Your task to perform on an android device: open app "Roku - Official Remote Control" (install if not already installed), go to login, and select forgot password Image 0: 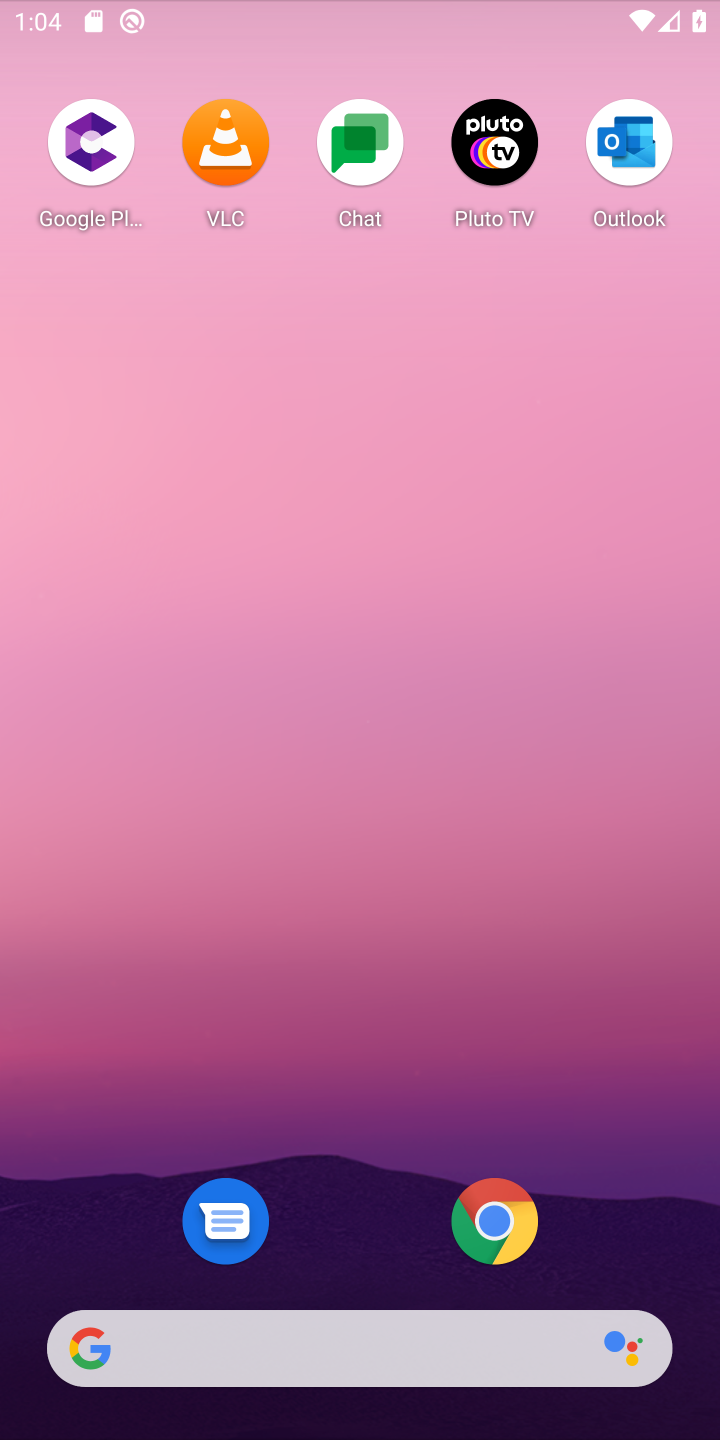
Step 0: press home button
Your task to perform on an android device: open app "Roku - Official Remote Control" (install if not already installed), go to login, and select forgot password Image 1: 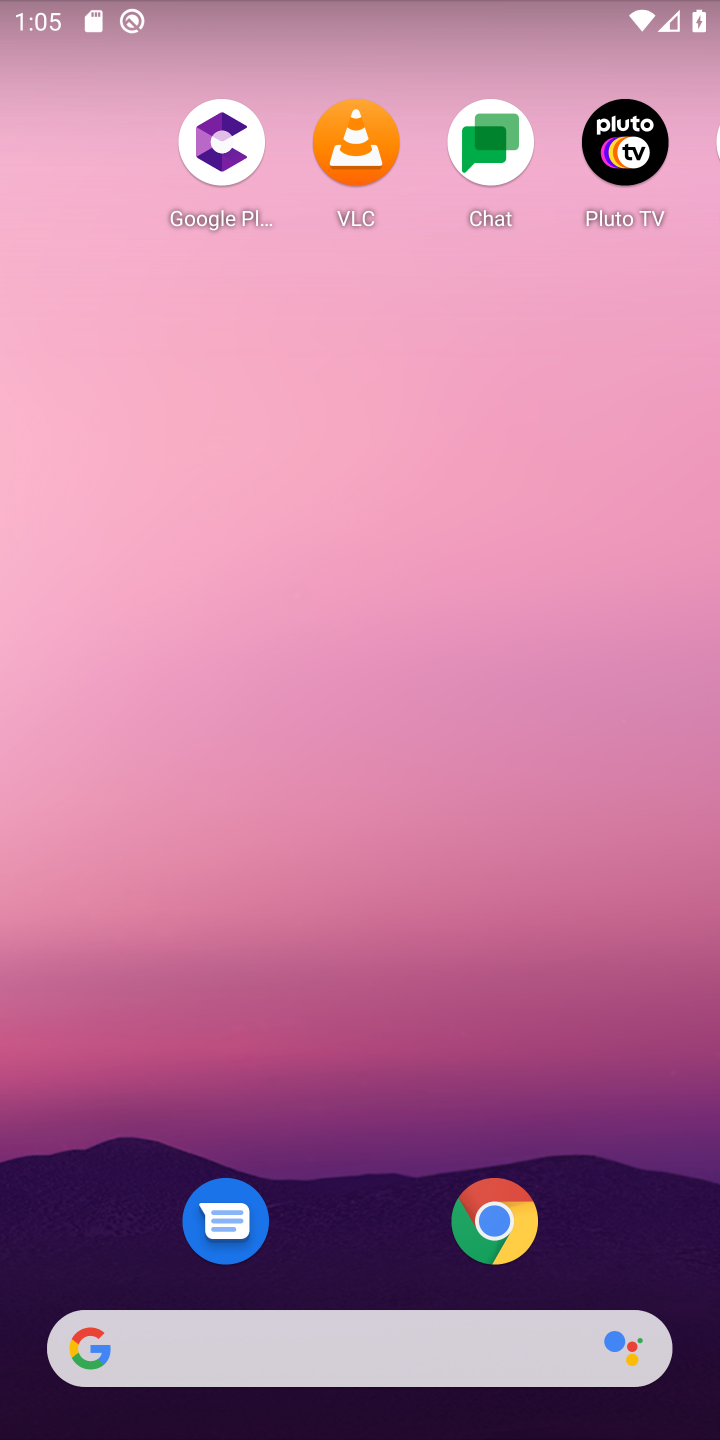
Step 1: drag from (350, 477) to (378, 141)
Your task to perform on an android device: open app "Roku - Official Remote Control" (install if not already installed), go to login, and select forgot password Image 2: 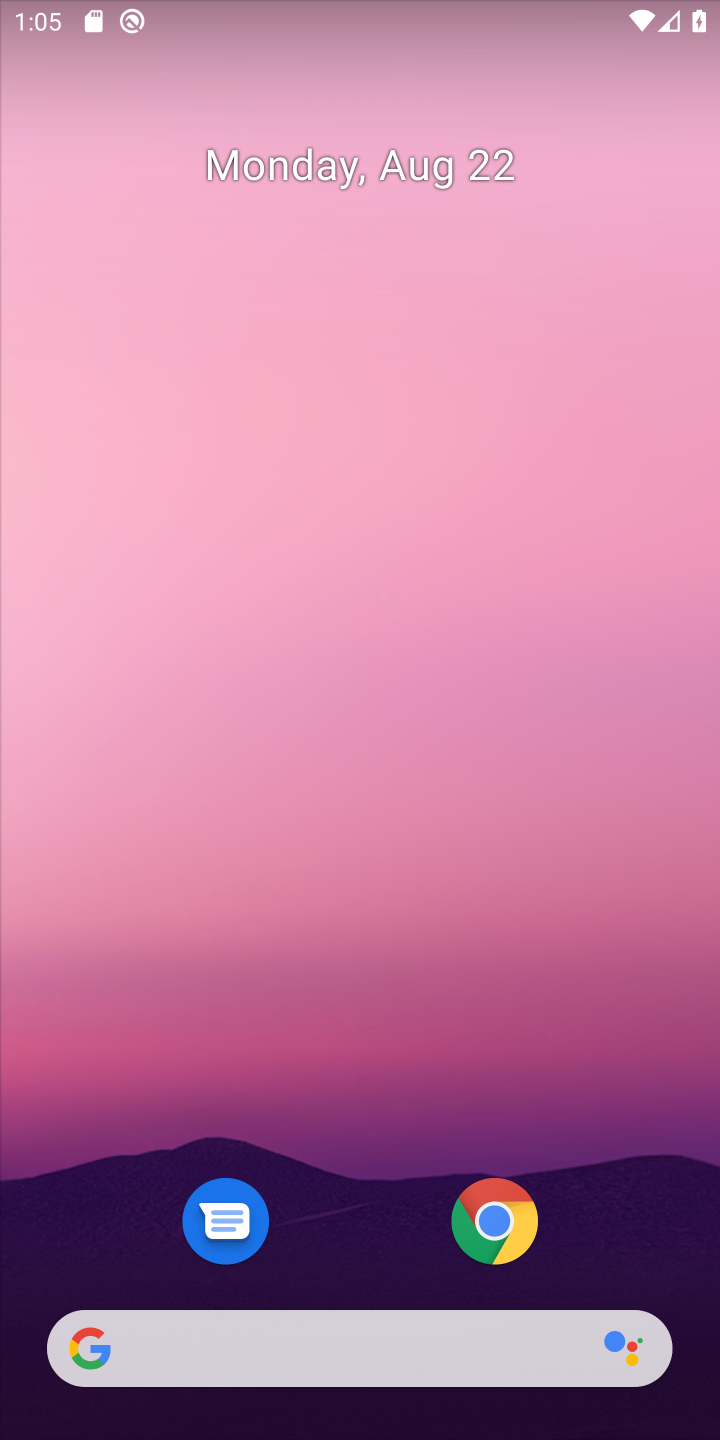
Step 2: drag from (352, 1275) to (346, 55)
Your task to perform on an android device: open app "Roku - Official Remote Control" (install if not already installed), go to login, and select forgot password Image 3: 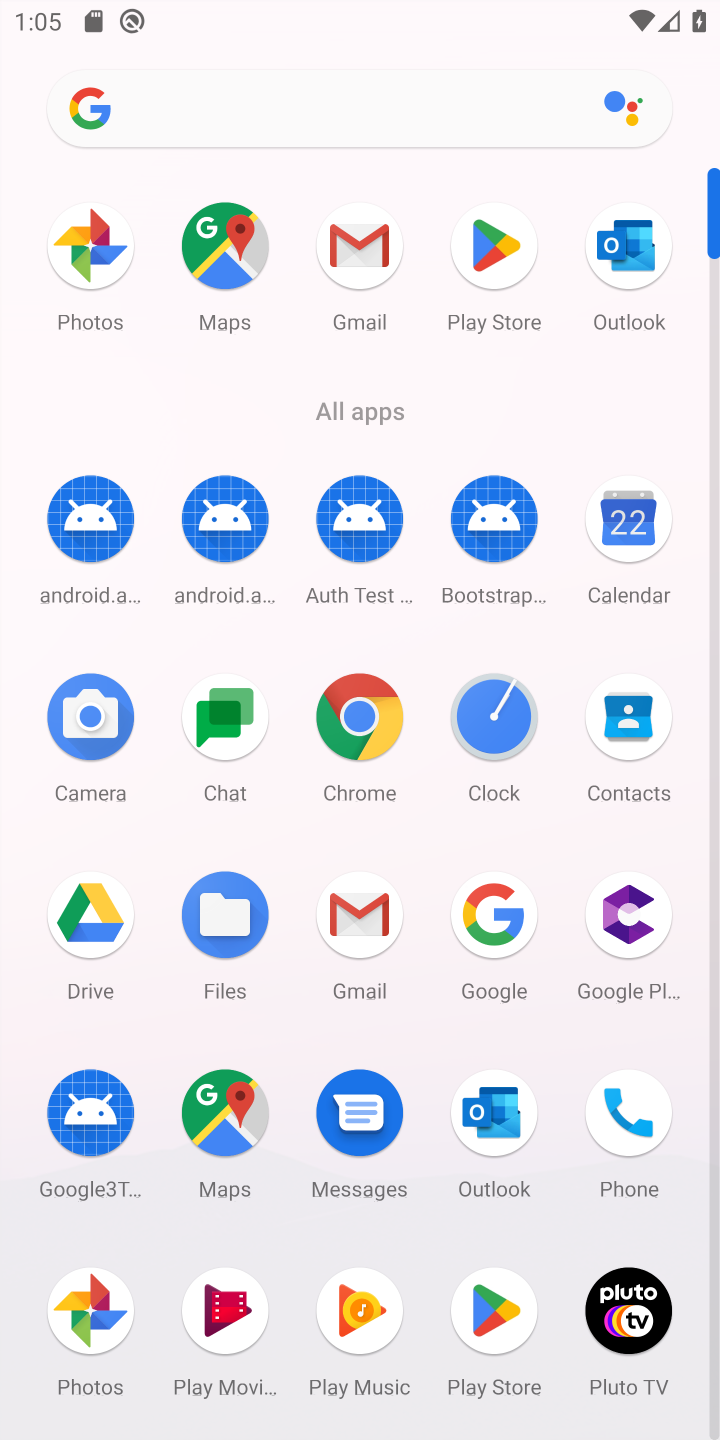
Step 3: click (489, 238)
Your task to perform on an android device: open app "Roku - Official Remote Control" (install if not already installed), go to login, and select forgot password Image 4: 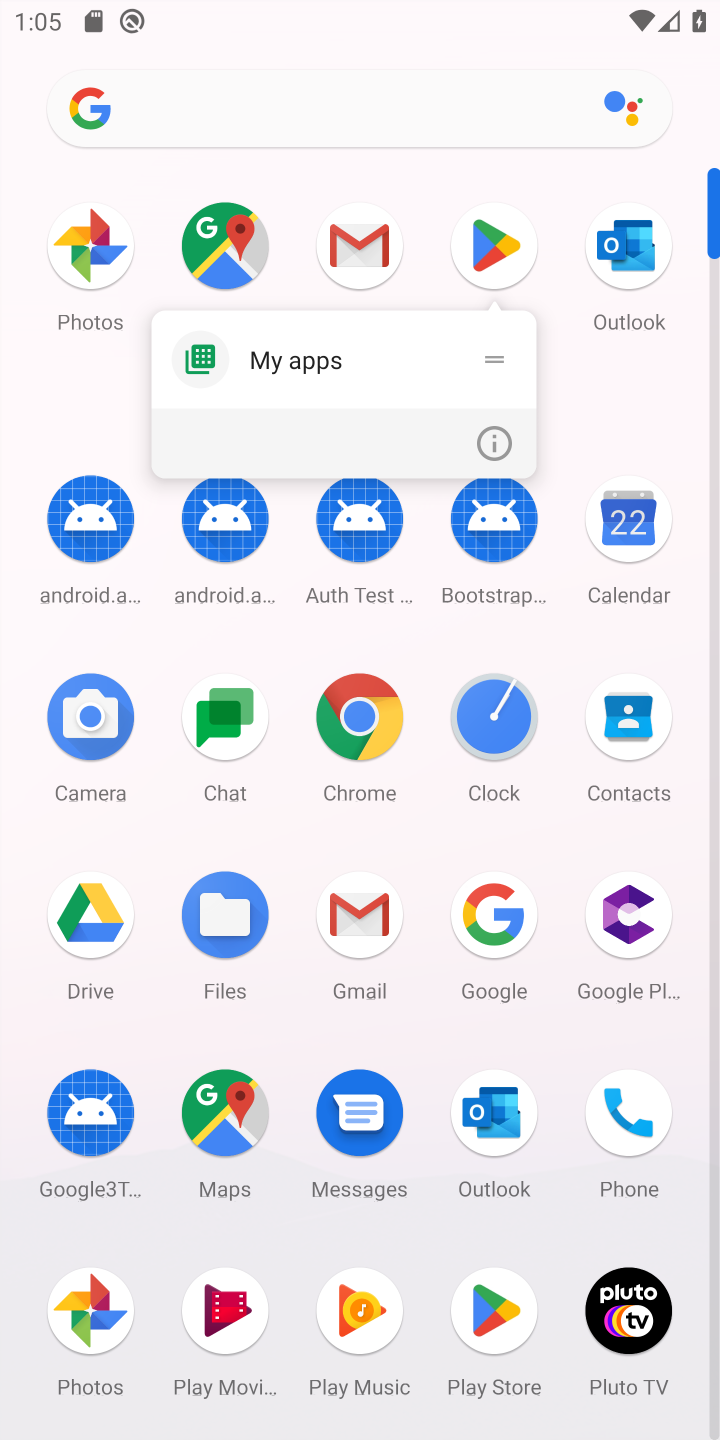
Step 4: click (487, 237)
Your task to perform on an android device: open app "Roku - Official Remote Control" (install if not already installed), go to login, and select forgot password Image 5: 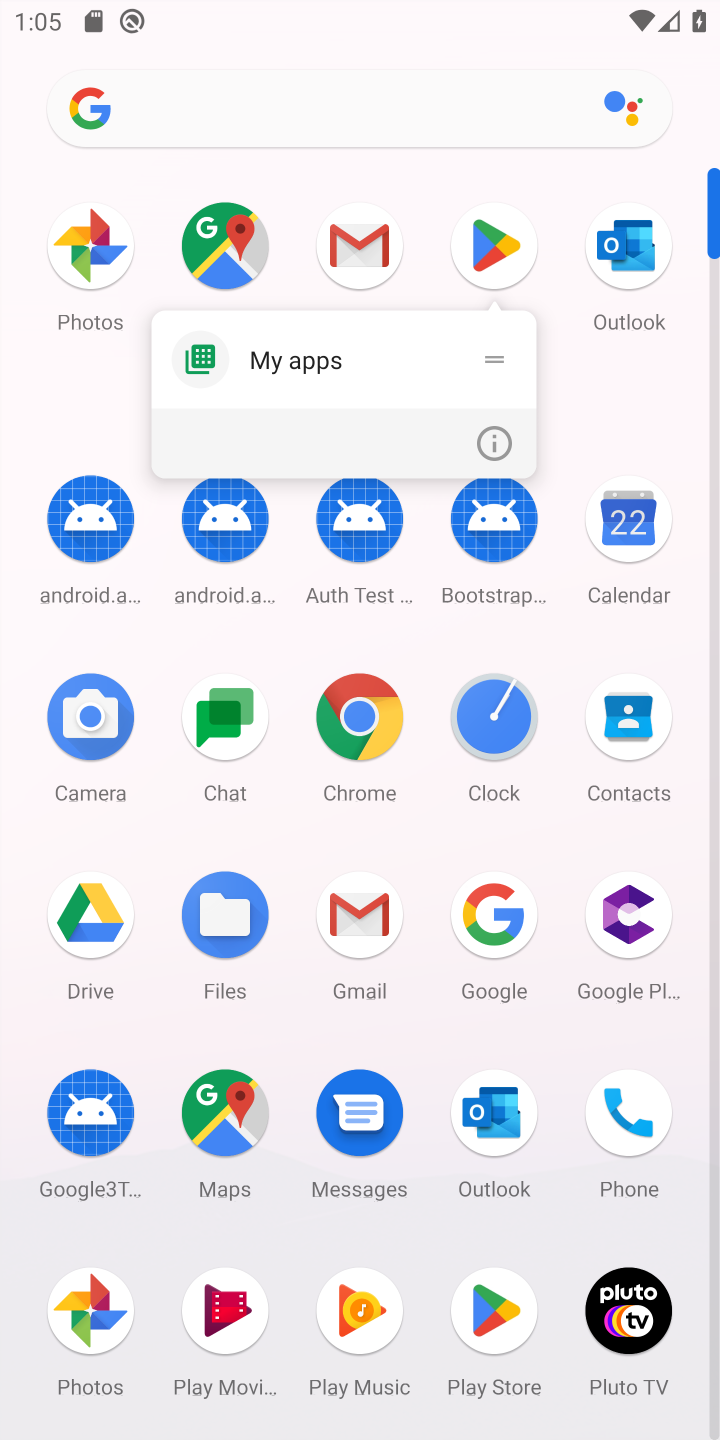
Step 5: click (487, 233)
Your task to perform on an android device: open app "Roku - Official Remote Control" (install if not already installed), go to login, and select forgot password Image 6: 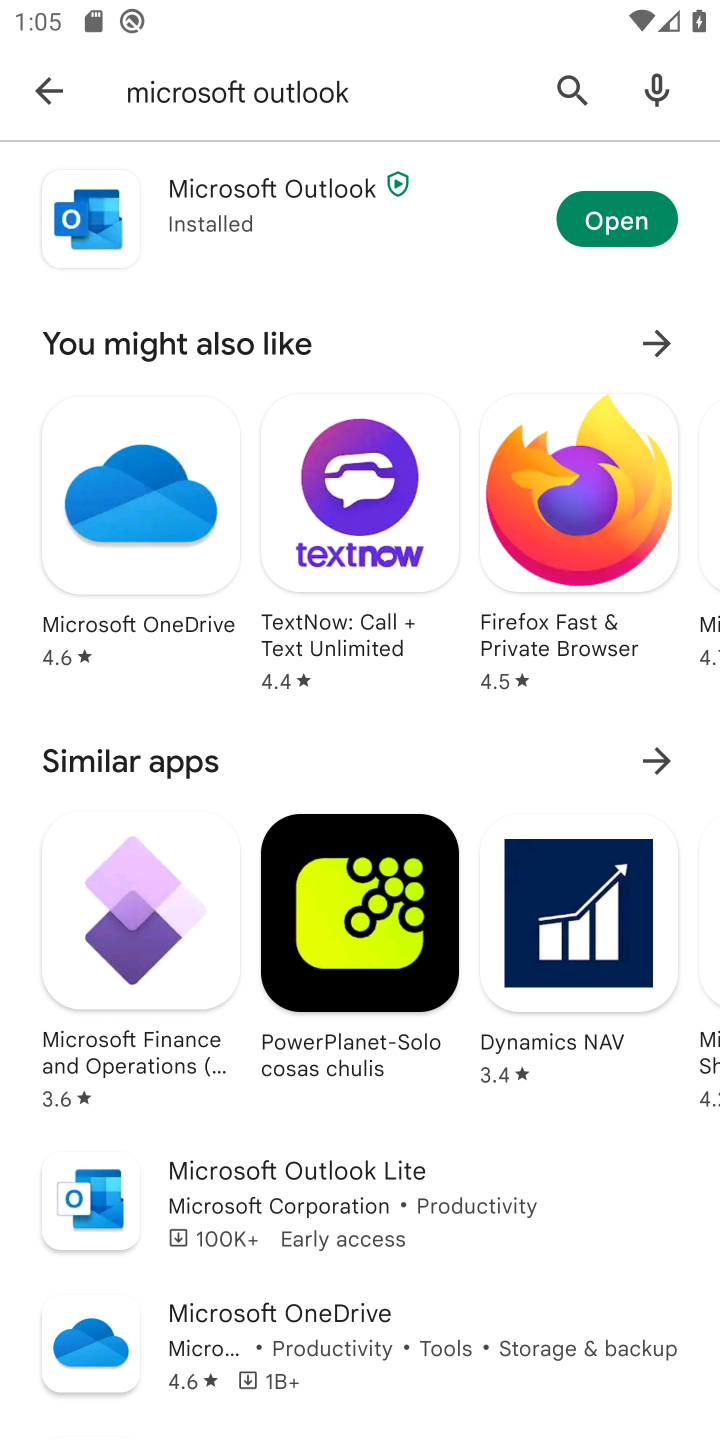
Step 6: click (567, 92)
Your task to perform on an android device: open app "Roku - Official Remote Control" (install if not already installed), go to login, and select forgot password Image 7: 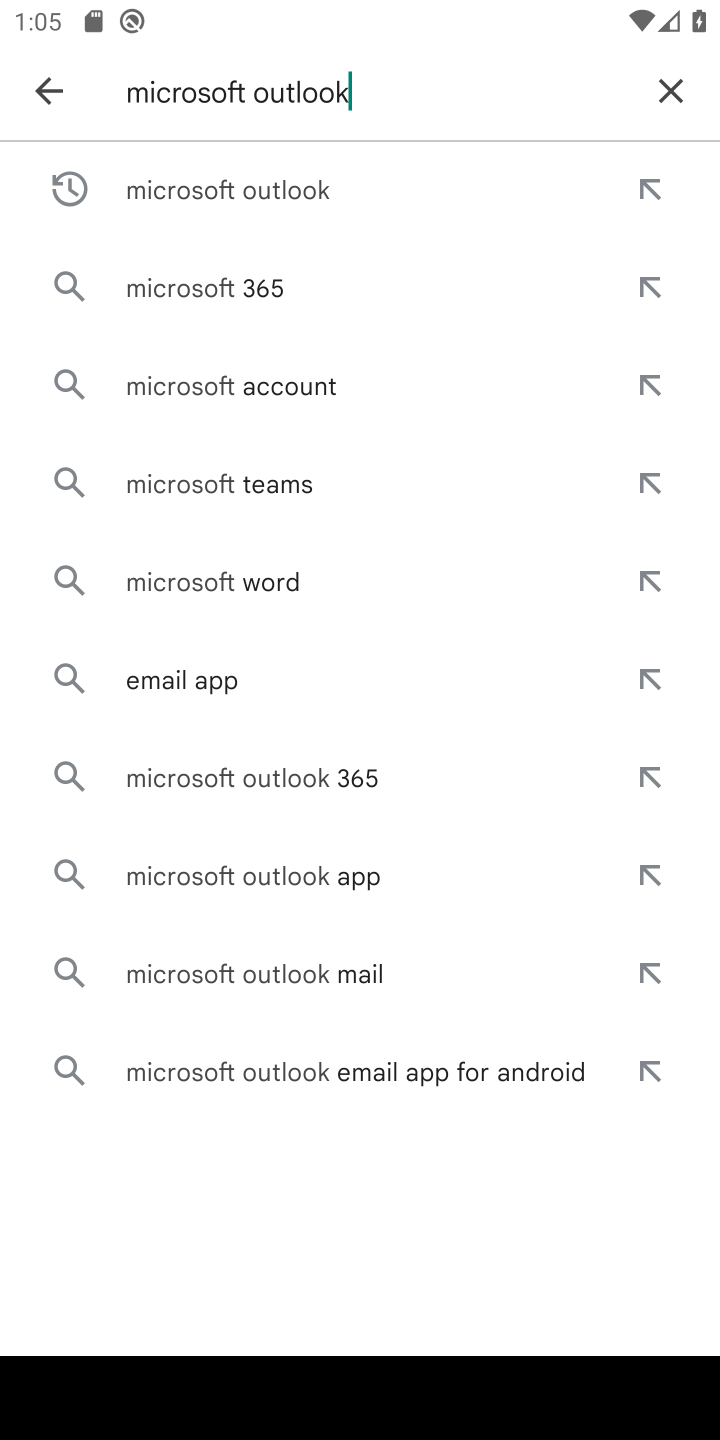
Step 7: click (661, 78)
Your task to perform on an android device: open app "Roku - Official Remote Control" (install if not already installed), go to login, and select forgot password Image 8: 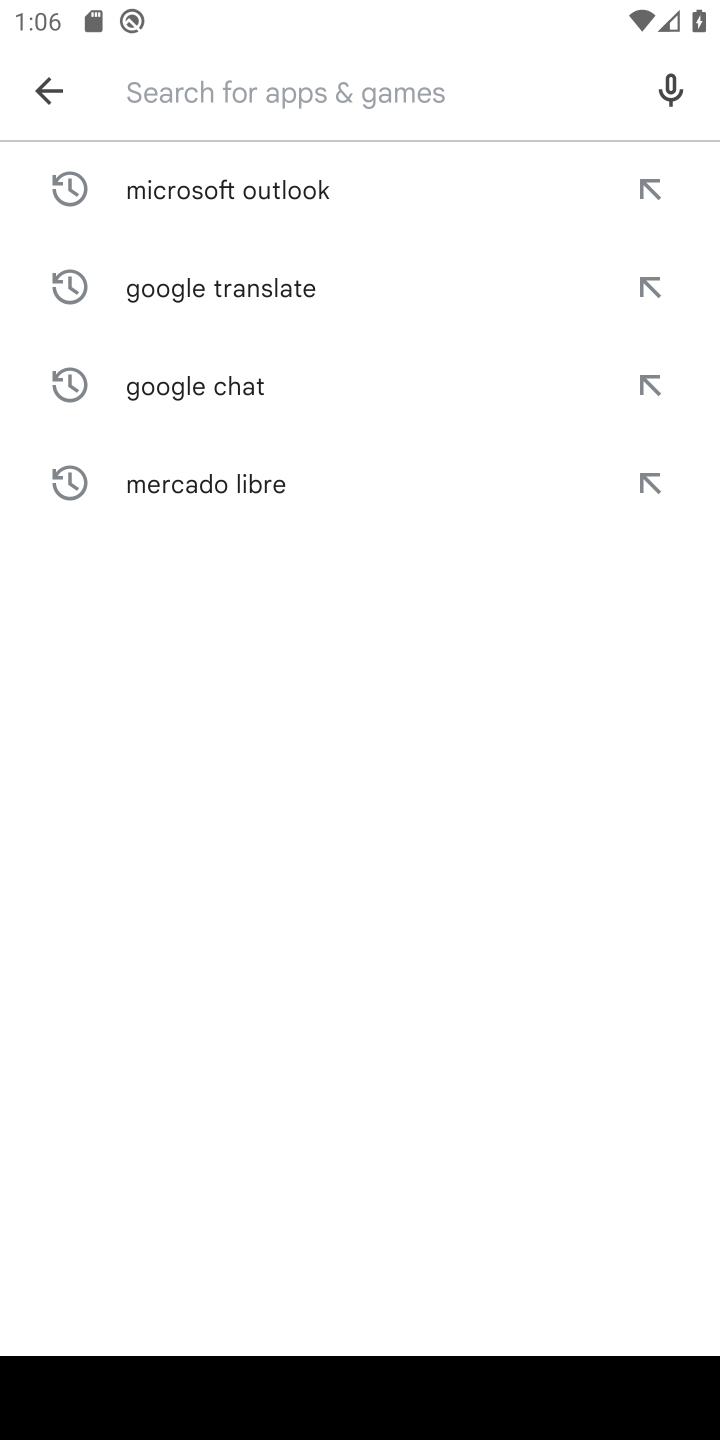
Step 8: type "Roku - Official Remote Control"
Your task to perform on an android device: open app "Roku - Official Remote Control" (install if not already installed), go to login, and select forgot password Image 9: 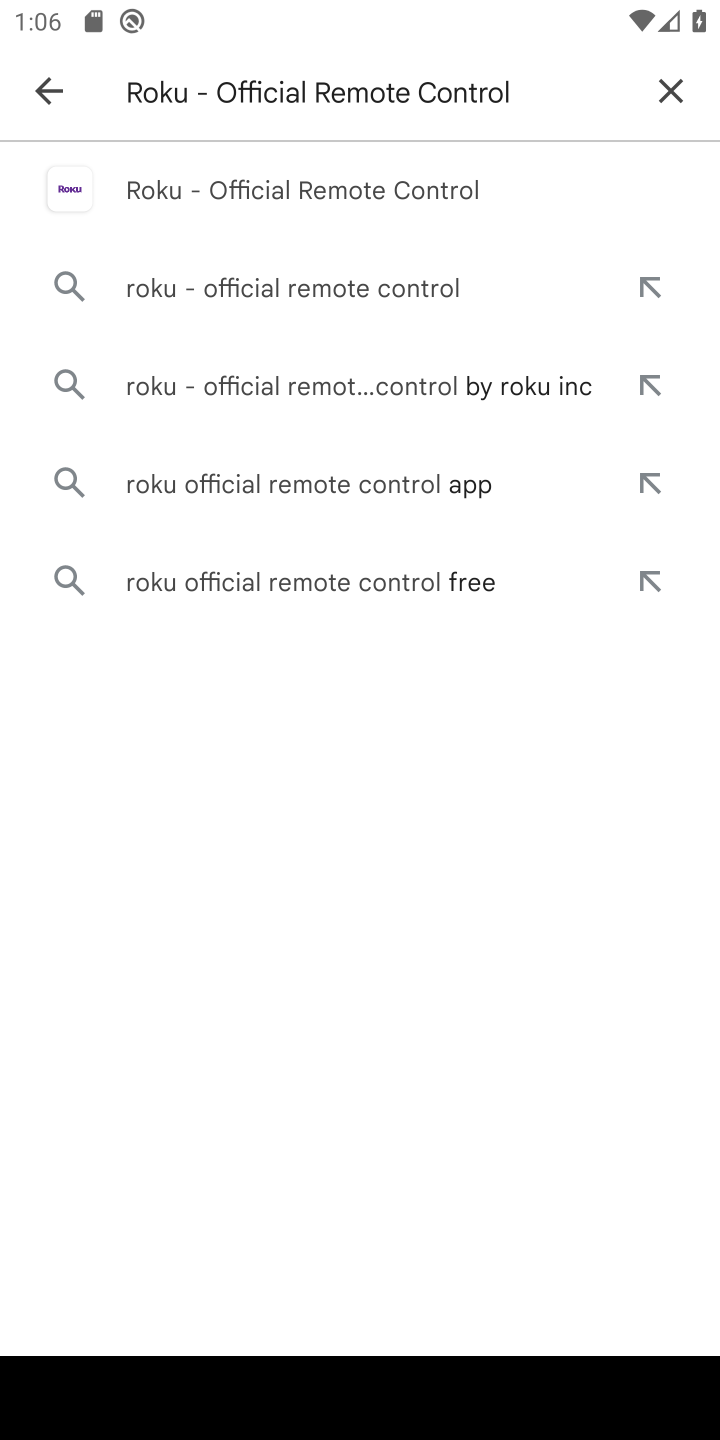
Step 9: click (286, 191)
Your task to perform on an android device: open app "Roku - Official Remote Control" (install if not already installed), go to login, and select forgot password Image 10: 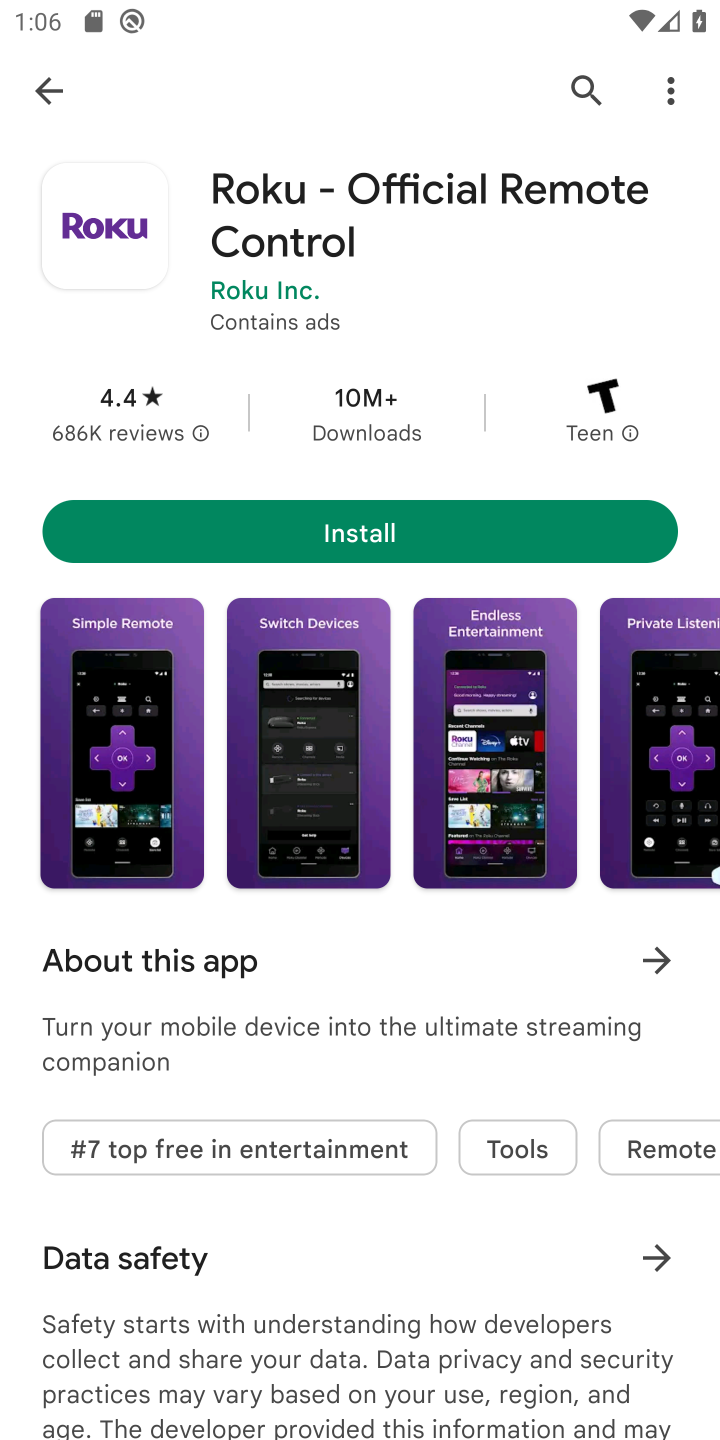
Step 10: click (366, 536)
Your task to perform on an android device: open app "Roku - Official Remote Control" (install if not already installed), go to login, and select forgot password Image 11: 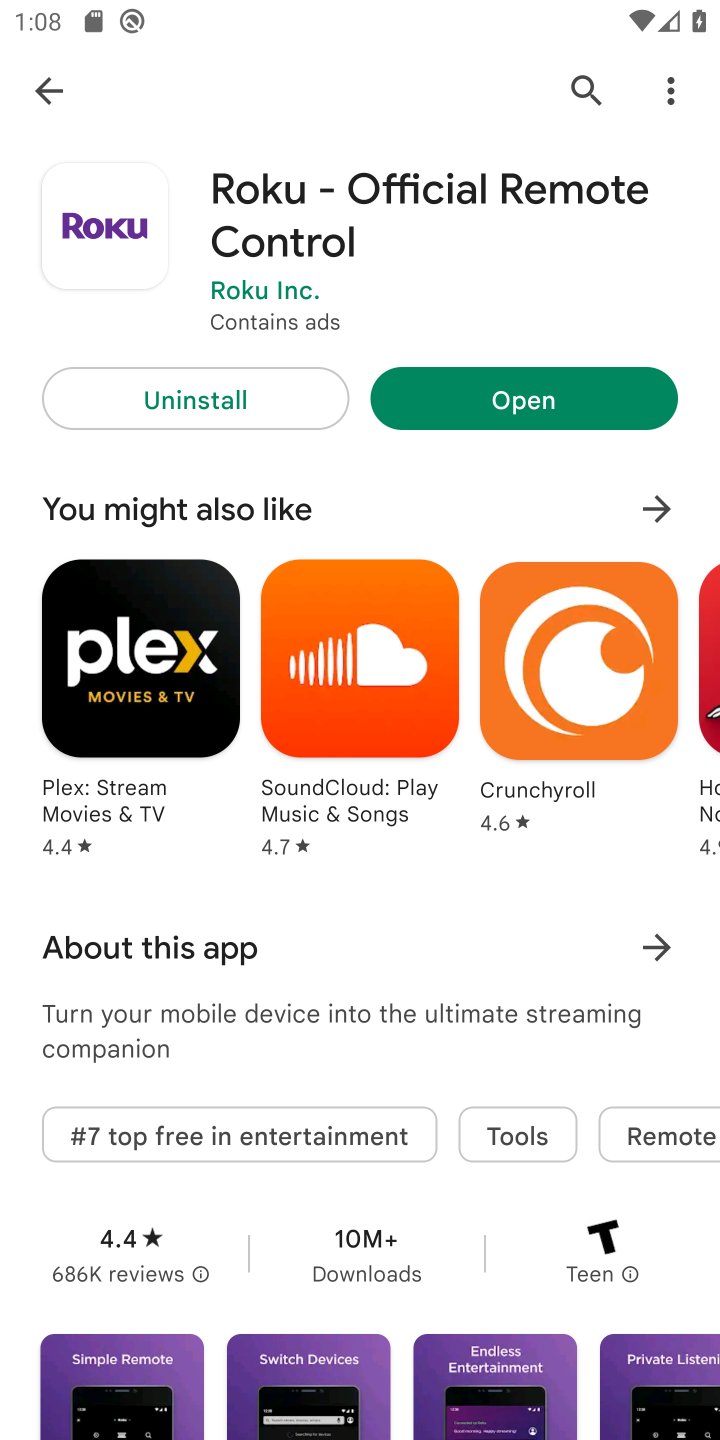
Step 11: click (536, 398)
Your task to perform on an android device: open app "Roku - Official Remote Control" (install if not already installed), go to login, and select forgot password Image 12: 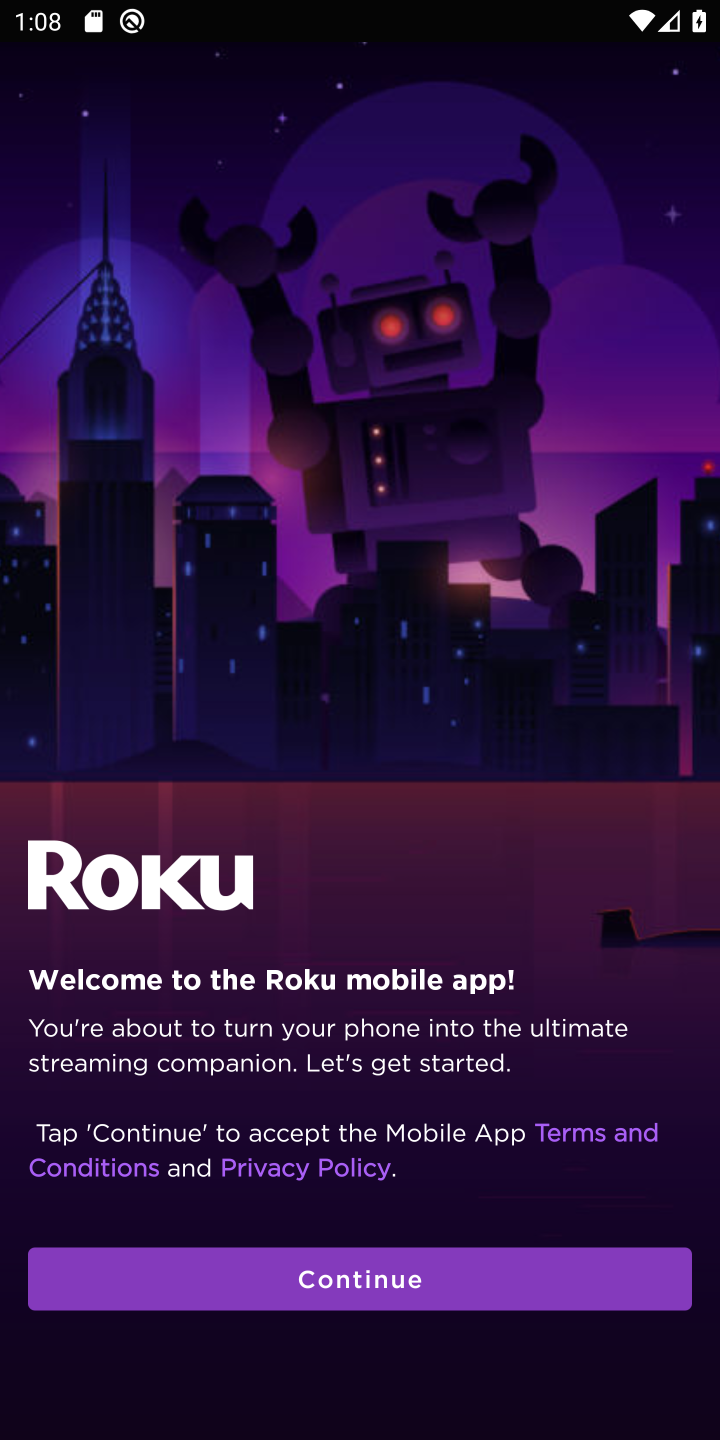
Step 12: click (364, 1286)
Your task to perform on an android device: open app "Roku - Official Remote Control" (install if not already installed), go to login, and select forgot password Image 13: 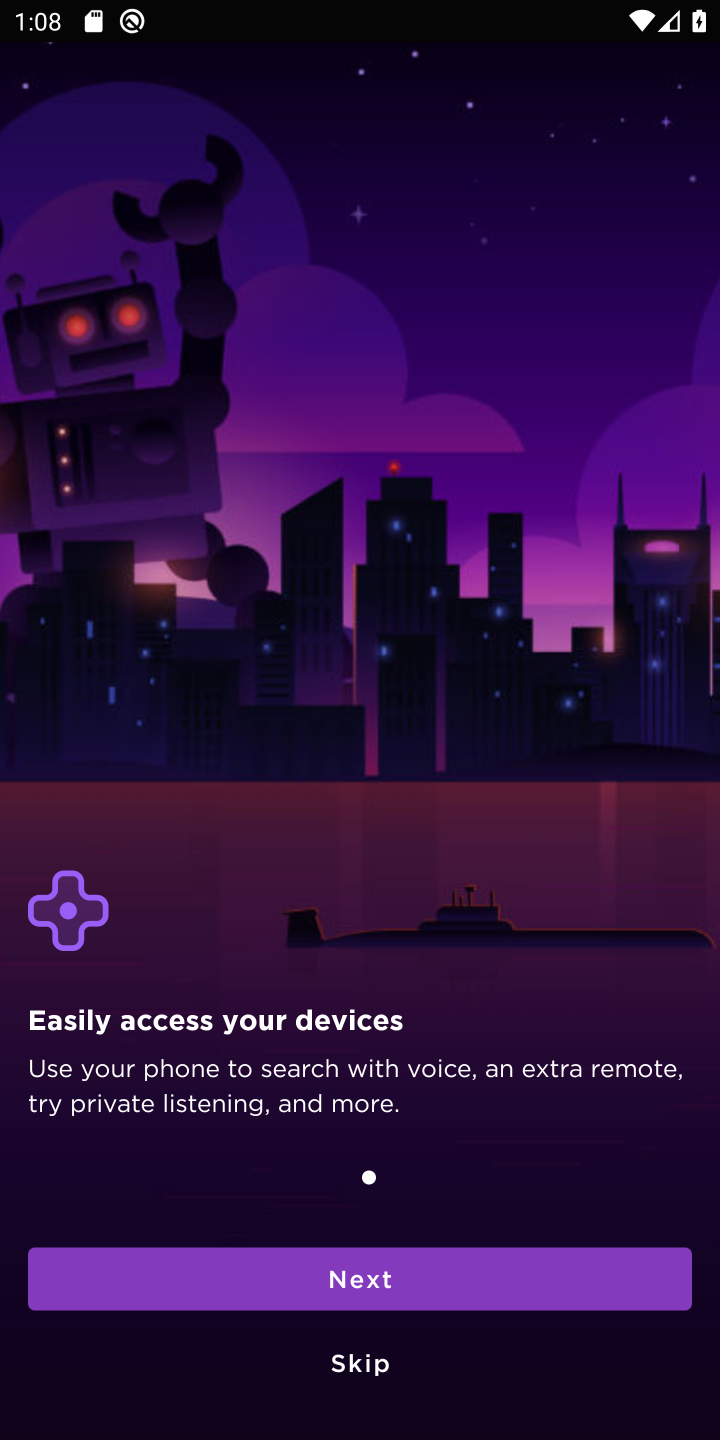
Step 13: click (384, 1352)
Your task to perform on an android device: open app "Roku - Official Remote Control" (install if not already installed), go to login, and select forgot password Image 14: 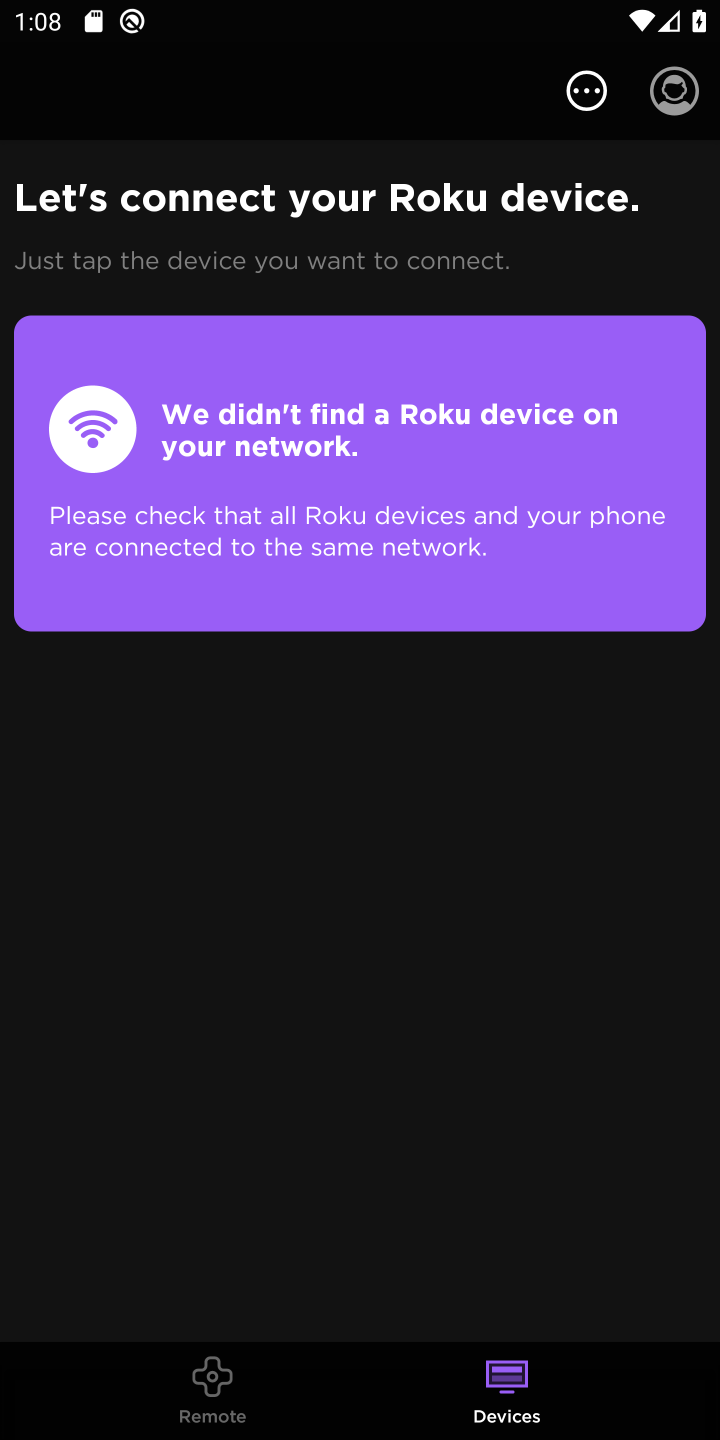
Step 14: click (226, 1383)
Your task to perform on an android device: open app "Roku - Official Remote Control" (install if not already installed), go to login, and select forgot password Image 15: 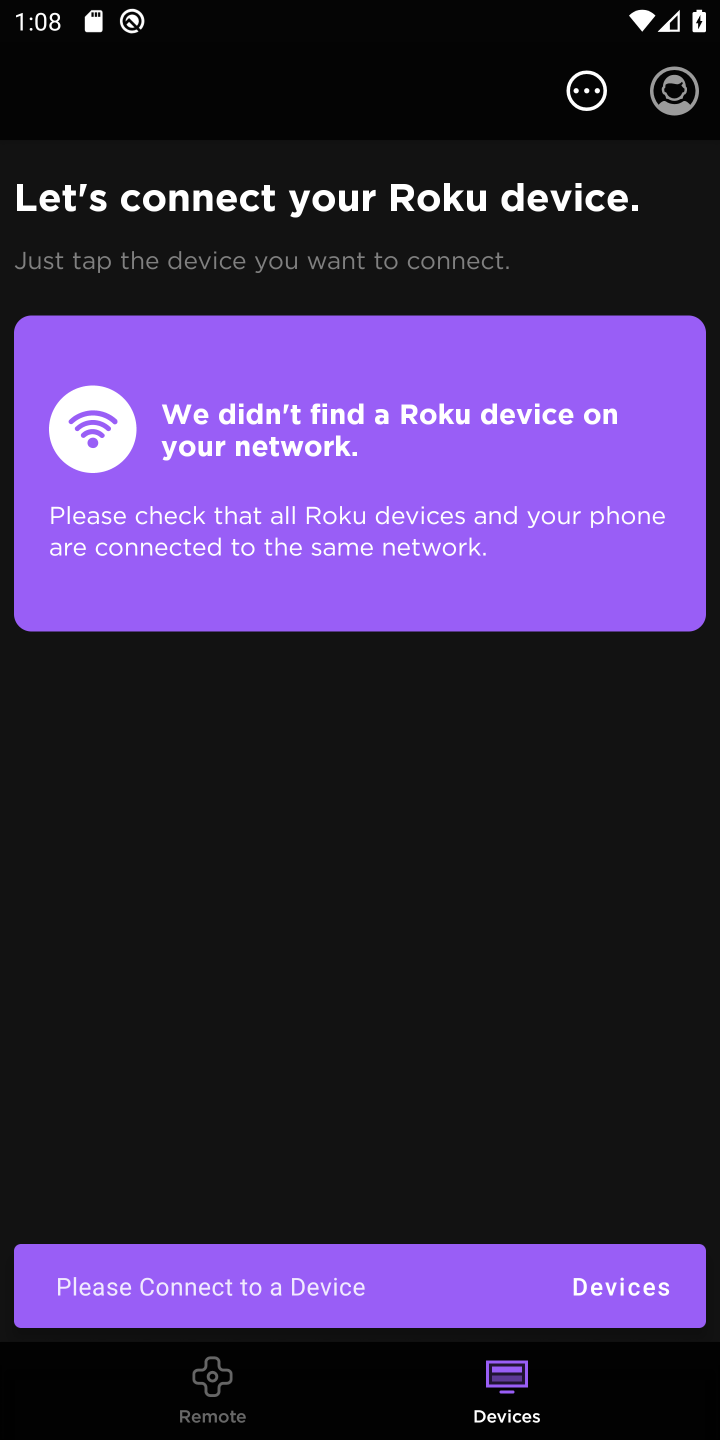
Step 15: click (681, 70)
Your task to perform on an android device: open app "Roku - Official Remote Control" (install if not already installed), go to login, and select forgot password Image 16: 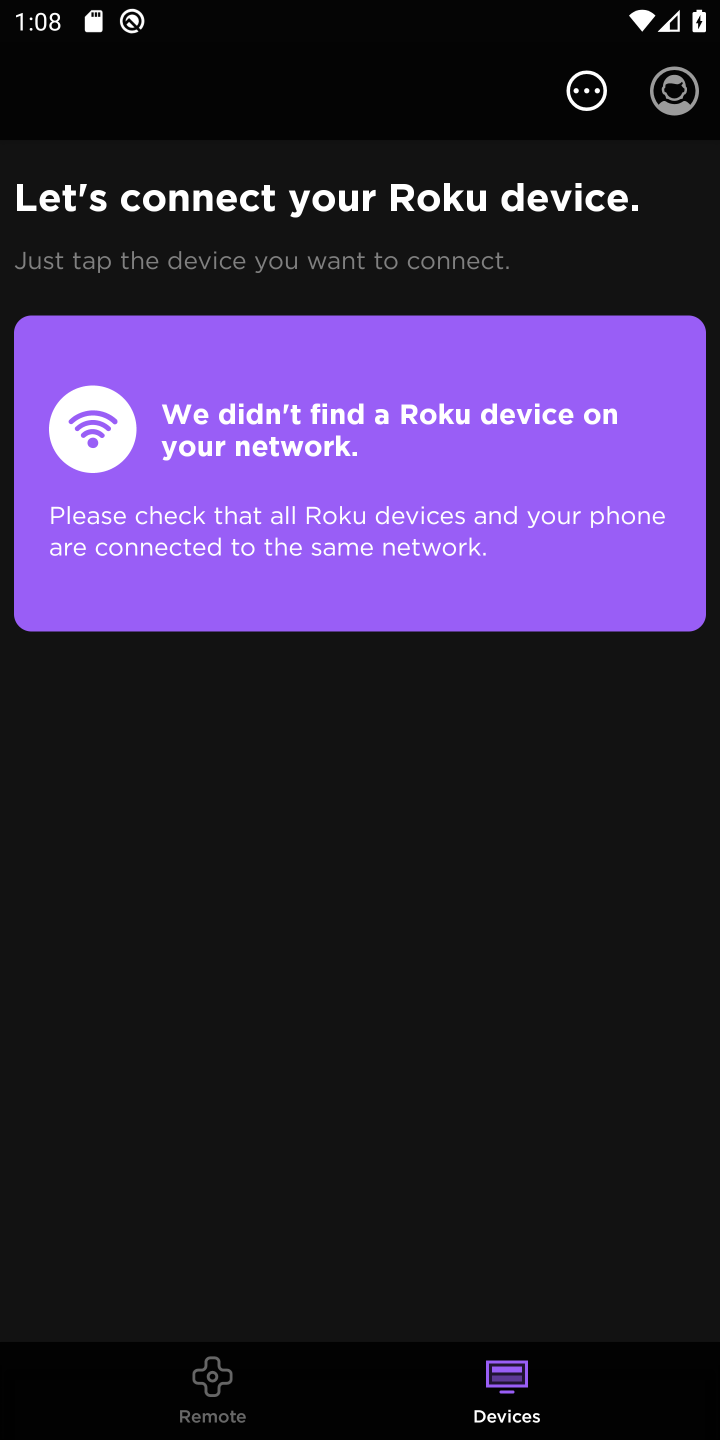
Step 16: click (669, 104)
Your task to perform on an android device: open app "Roku - Official Remote Control" (install if not already installed), go to login, and select forgot password Image 17: 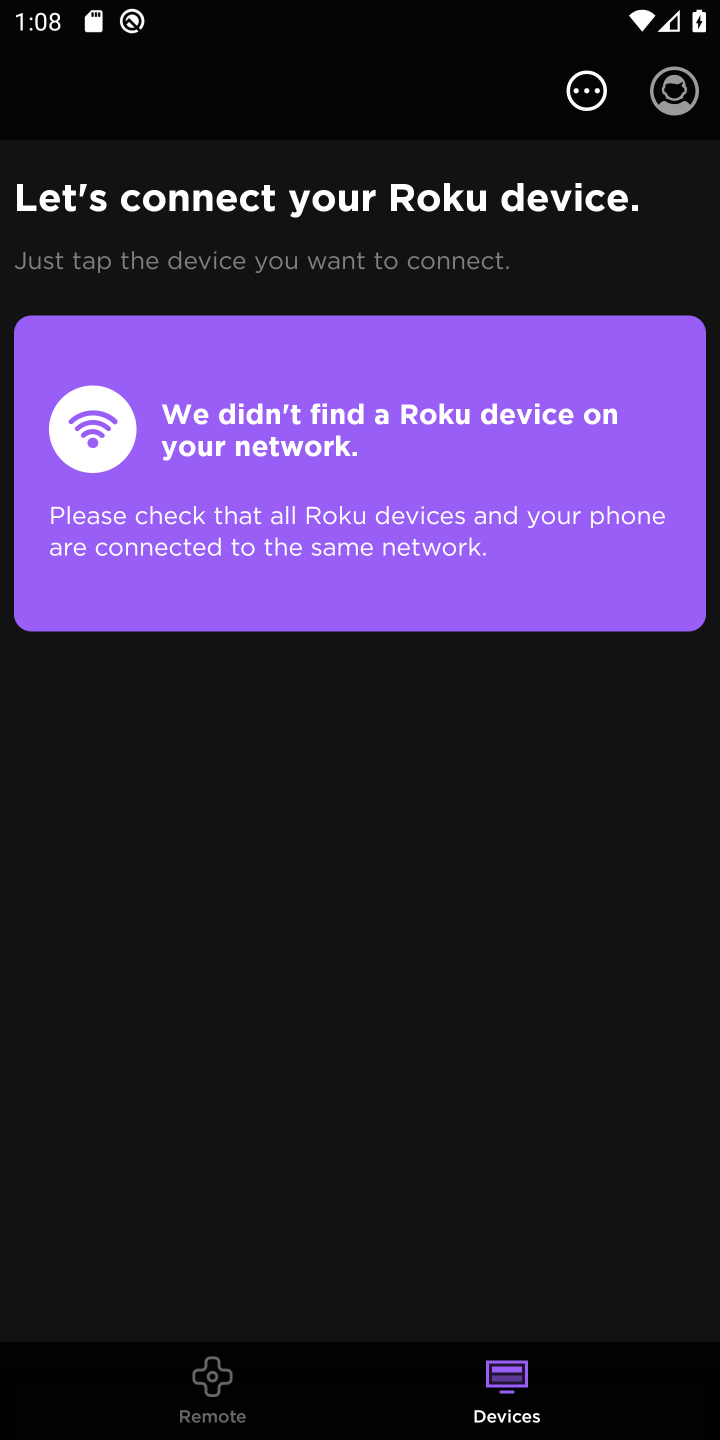
Step 17: click (683, 84)
Your task to perform on an android device: open app "Roku - Official Remote Control" (install if not already installed), go to login, and select forgot password Image 18: 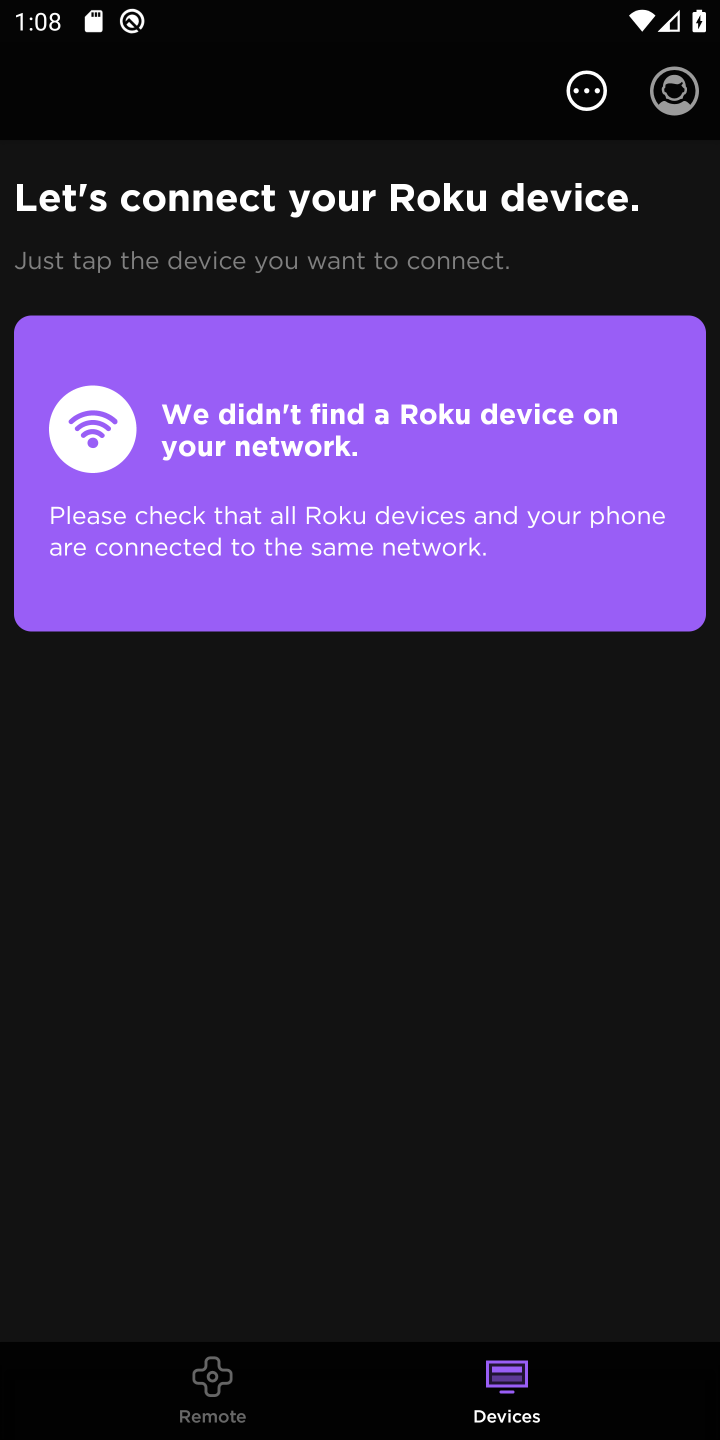
Step 18: click (683, 84)
Your task to perform on an android device: open app "Roku - Official Remote Control" (install if not already installed), go to login, and select forgot password Image 19: 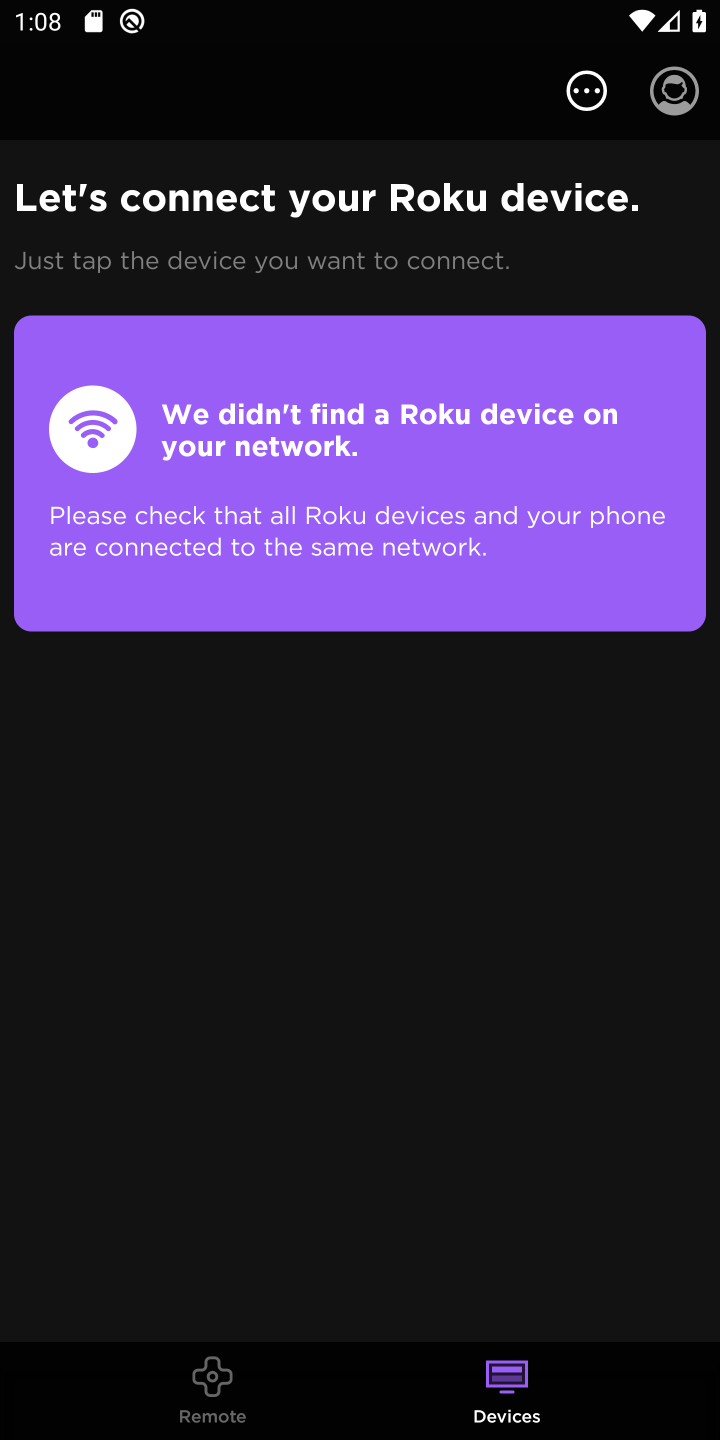
Step 19: click (587, 96)
Your task to perform on an android device: open app "Roku - Official Remote Control" (install if not already installed), go to login, and select forgot password Image 20: 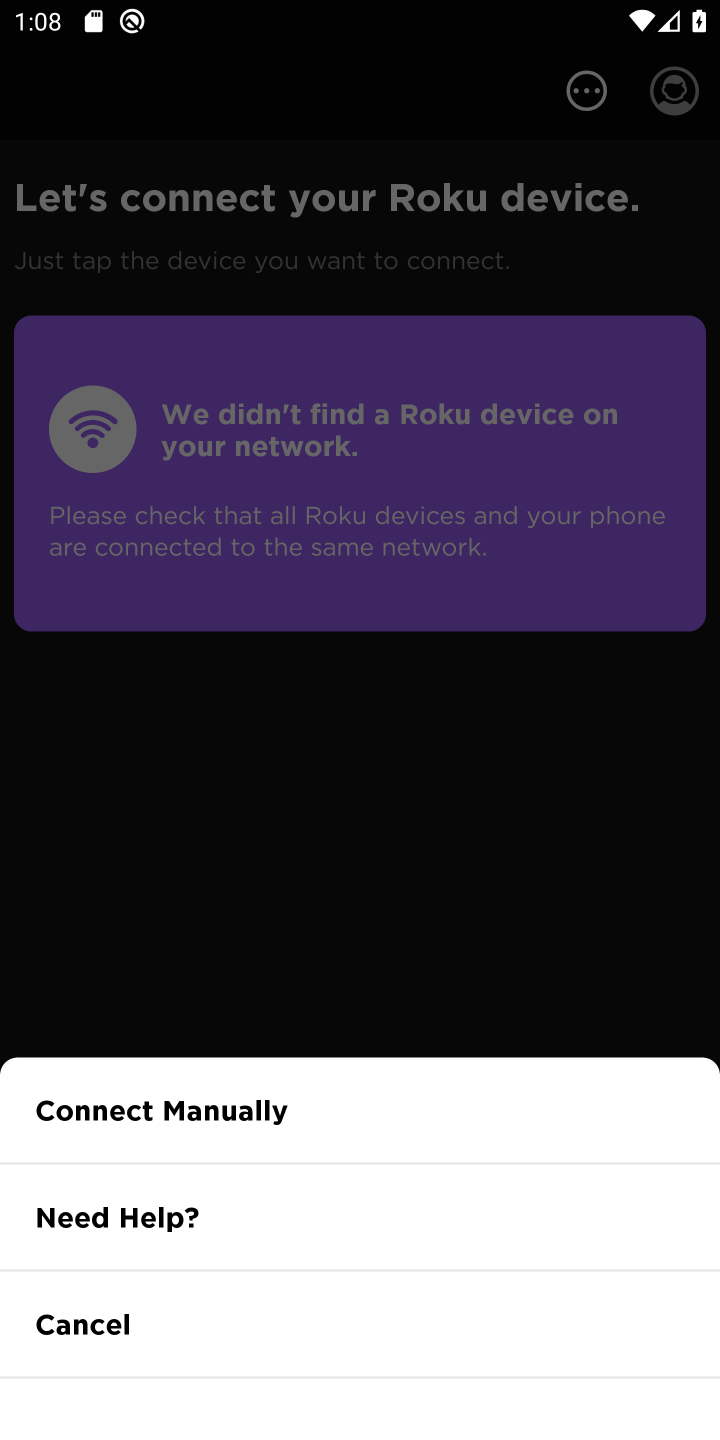
Step 20: task complete